Your task to perform on an android device: Toggle the flashlight Image 0: 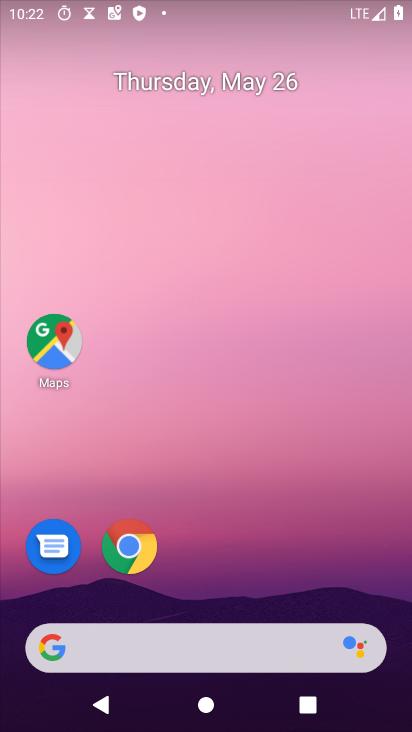
Step 0: drag from (345, 538) to (333, 119)
Your task to perform on an android device: Toggle the flashlight Image 1: 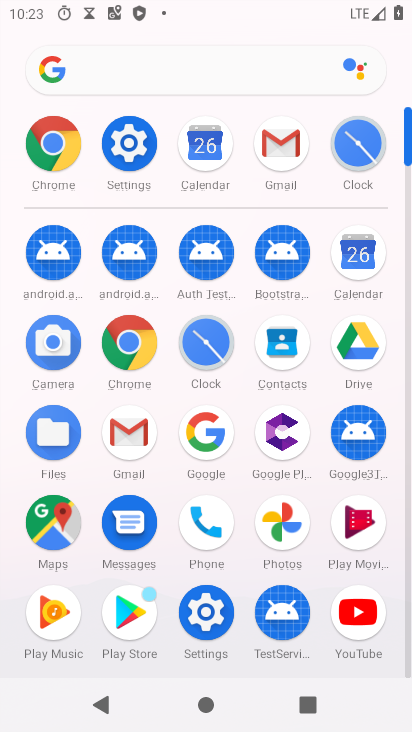
Step 1: click (139, 149)
Your task to perform on an android device: Toggle the flashlight Image 2: 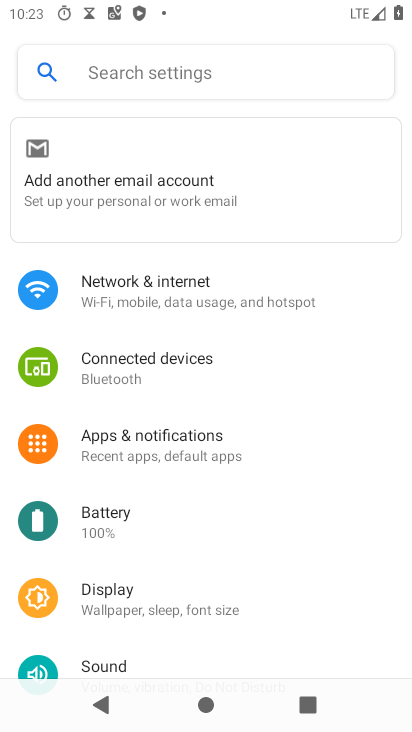
Step 2: click (193, 73)
Your task to perform on an android device: Toggle the flashlight Image 3: 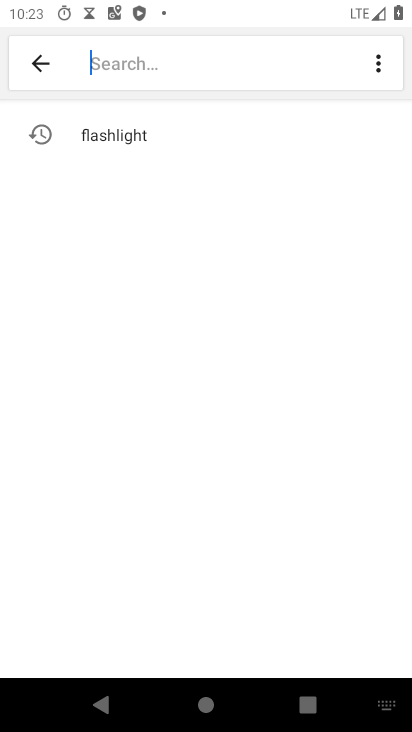
Step 3: type "flashlight "
Your task to perform on an android device: Toggle the flashlight Image 4: 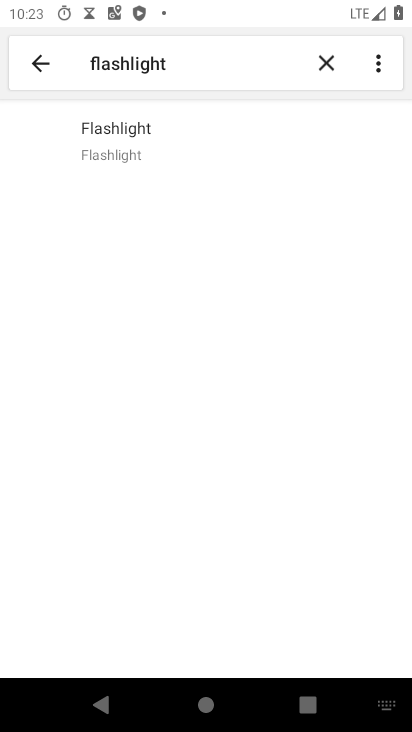
Step 4: click (145, 153)
Your task to perform on an android device: Toggle the flashlight Image 5: 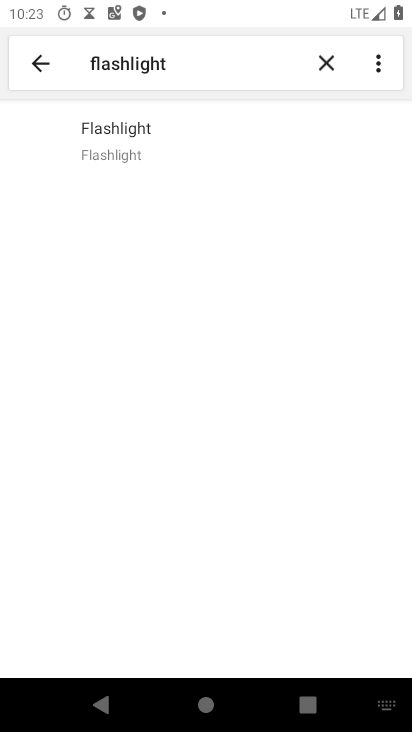
Step 5: click (193, 172)
Your task to perform on an android device: Toggle the flashlight Image 6: 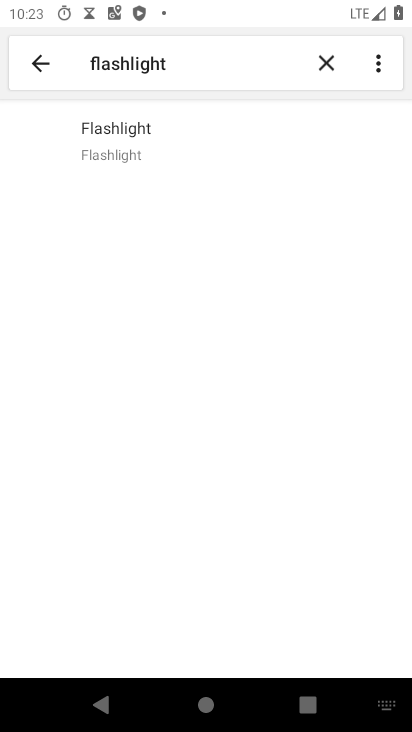
Step 6: task complete